Your task to perform on an android device: Open the web browser Image 0: 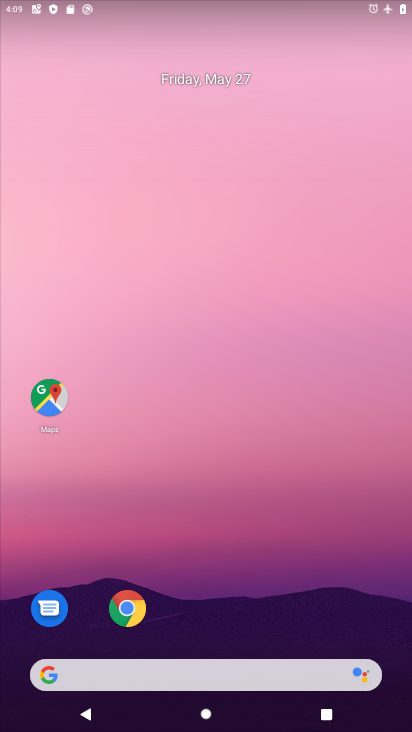
Step 0: click (125, 615)
Your task to perform on an android device: Open the web browser Image 1: 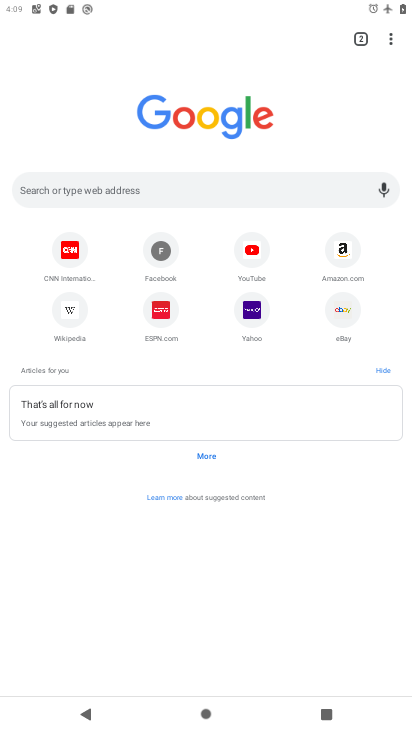
Step 1: task complete